Your task to perform on an android device: delete the emails in spam in the gmail app Image 0: 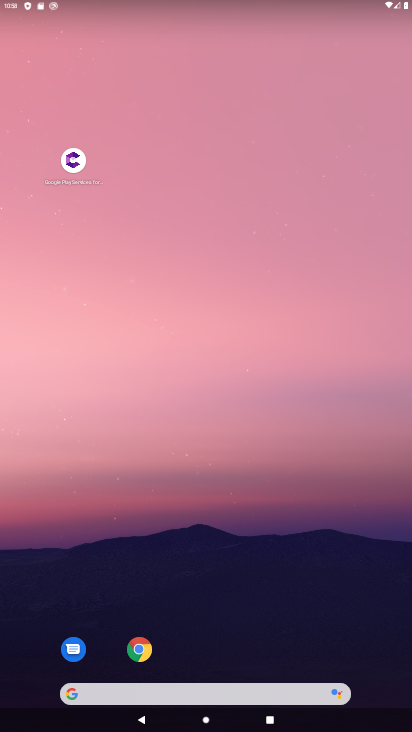
Step 0: drag from (225, 628) to (235, 101)
Your task to perform on an android device: delete the emails in spam in the gmail app Image 1: 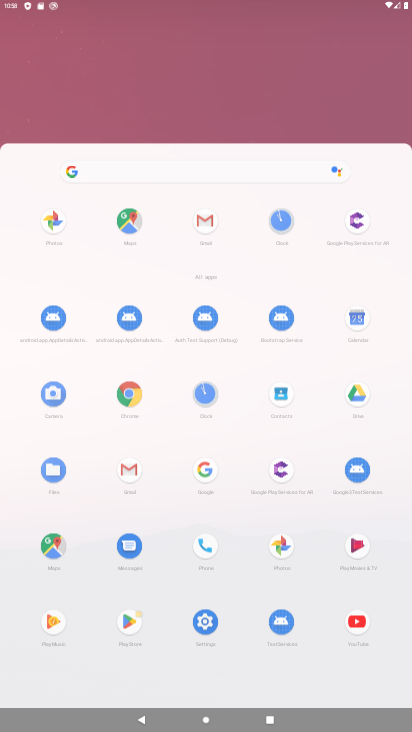
Step 1: click (174, 85)
Your task to perform on an android device: delete the emails in spam in the gmail app Image 2: 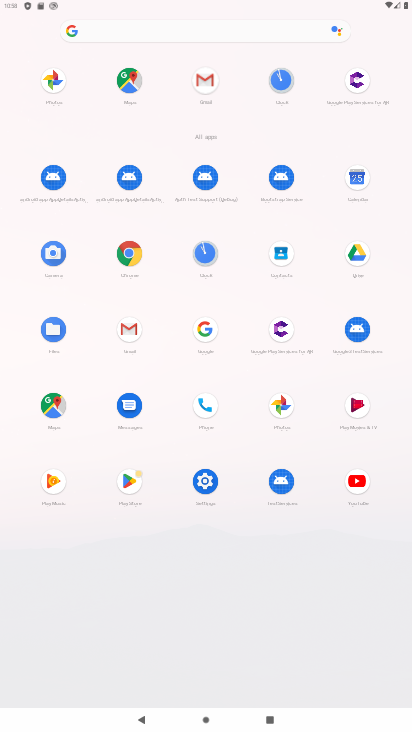
Step 2: drag from (176, 259) to (161, 156)
Your task to perform on an android device: delete the emails in spam in the gmail app Image 3: 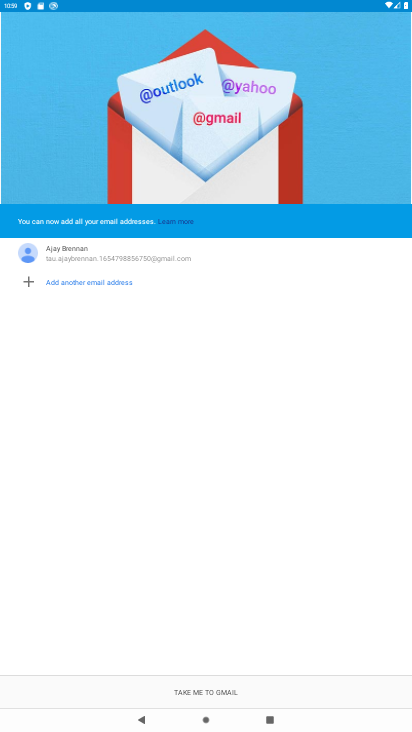
Step 3: press back button
Your task to perform on an android device: delete the emails in spam in the gmail app Image 4: 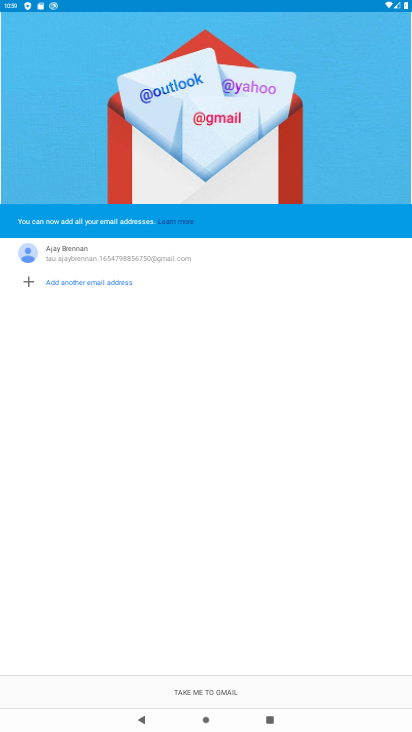
Step 4: press back button
Your task to perform on an android device: delete the emails in spam in the gmail app Image 5: 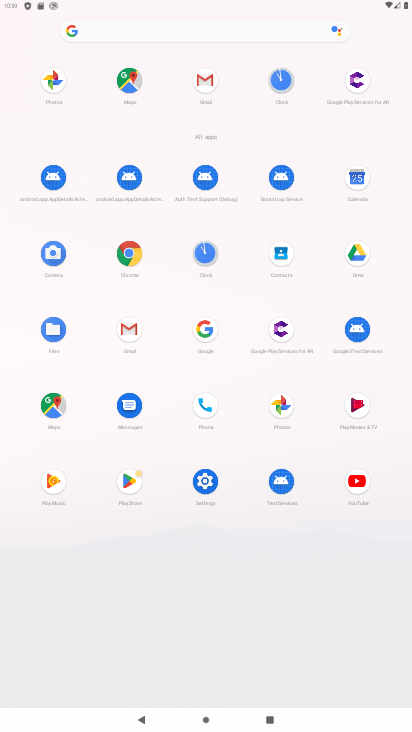
Step 5: click (123, 333)
Your task to perform on an android device: delete the emails in spam in the gmail app Image 6: 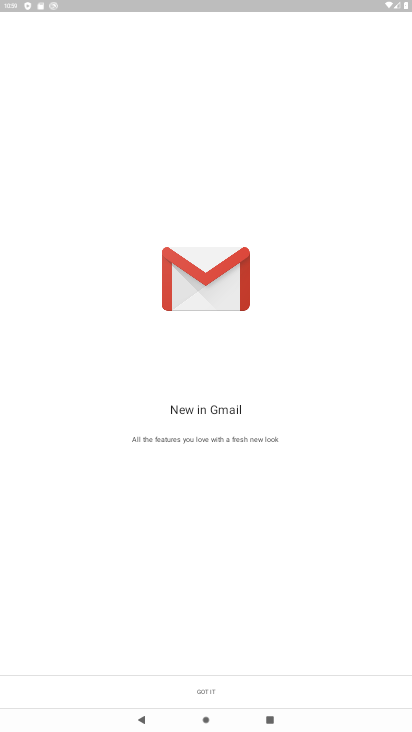
Step 6: click (216, 694)
Your task to perform on an android device: delete the emails in spam in the gmail app Image 7: 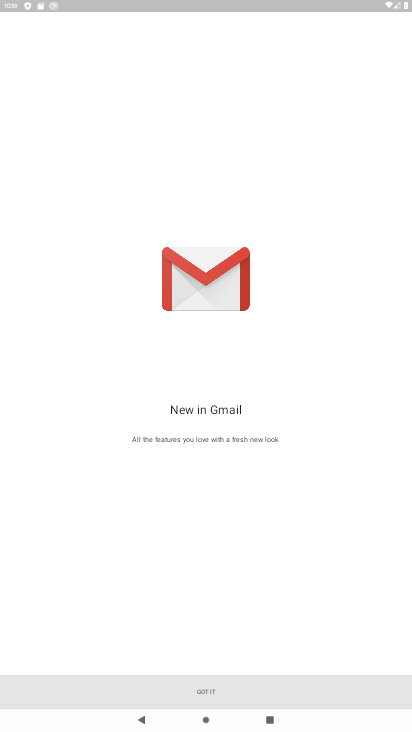
Step 7: click (215, 690)
Your task to perform on an android device: delete the emails in spam in the gmail app Image 8: 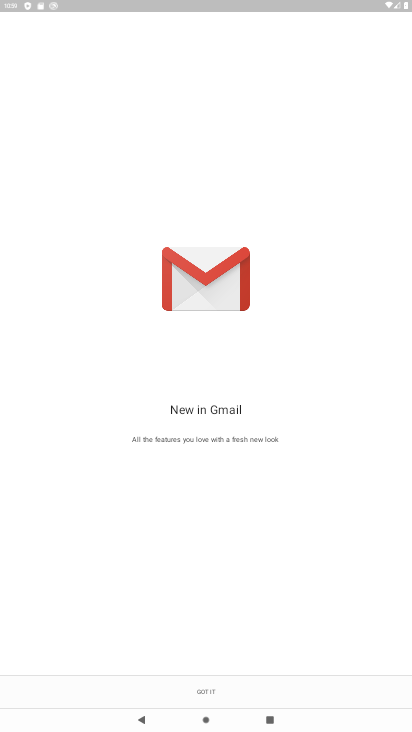
Step 8: click (214, 690)
Your task to perform on an android device: delete the emails in spam in the gmail app Image 9: 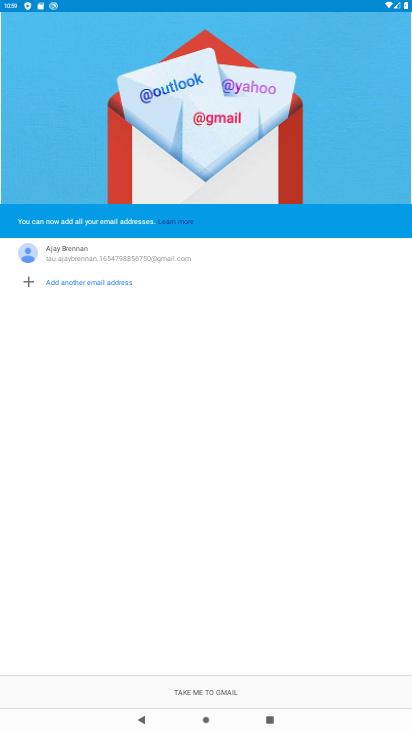
Step 9: click (215, 690)
Your task to perform on an android device: delete the emails in spam in the gmail app Image 10: 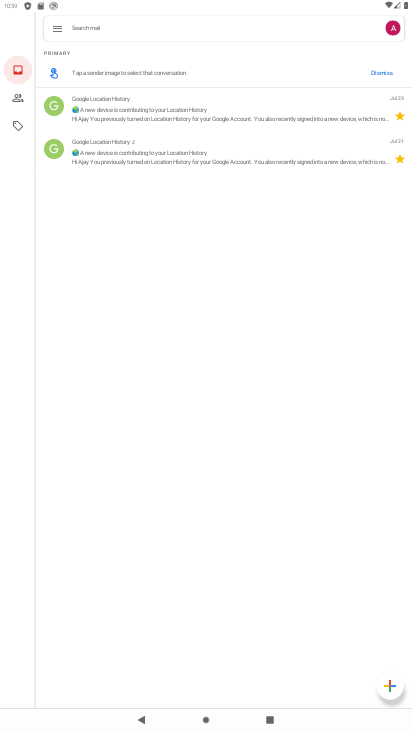
Step 10: click (52, 29)
Your task to perform on an android device: delete the emails in spam in the gmail app Image 11: 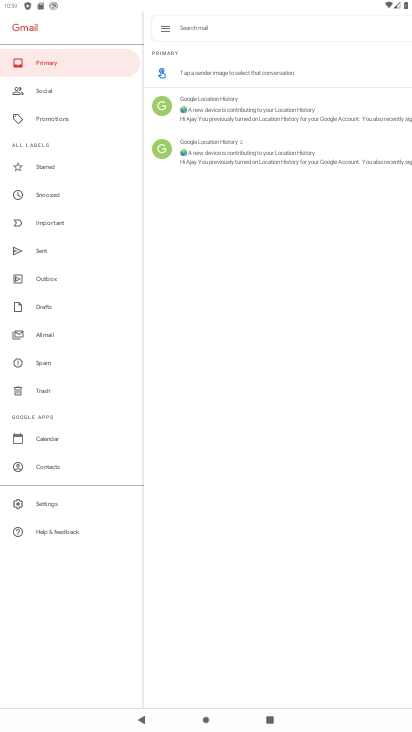
Step 11: click (35, 367)
Your task to perform on an android device: delete the emails in spam in the gmail app Image 12: 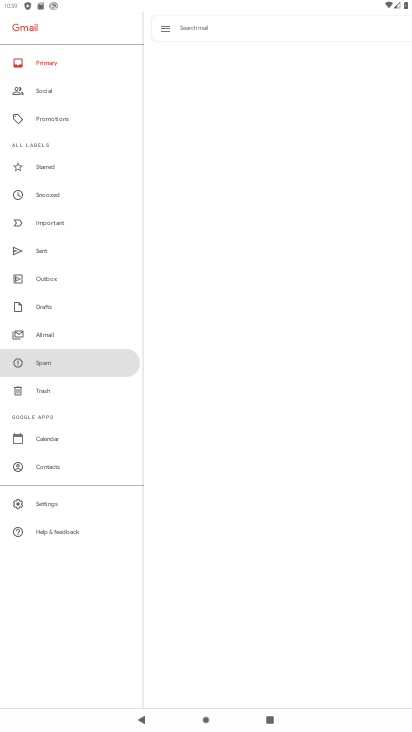
Step 12: click (35, 367)
Your task to perform on an android device: delete the emails in spam in the gmail app Image 13: 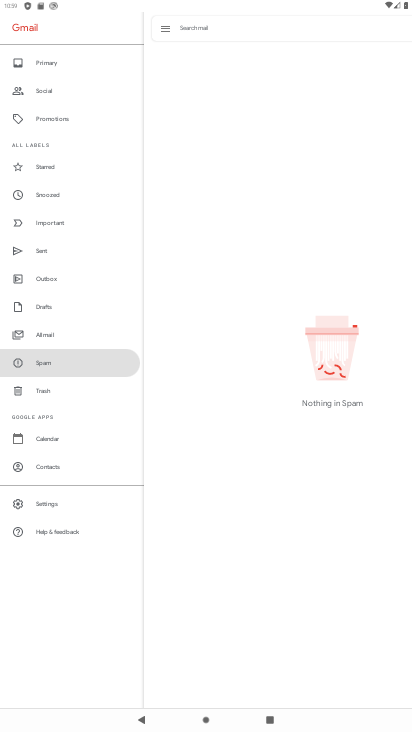
Step 13: task complete